Your task to perform on an android device: change text size in settings app Image 0: 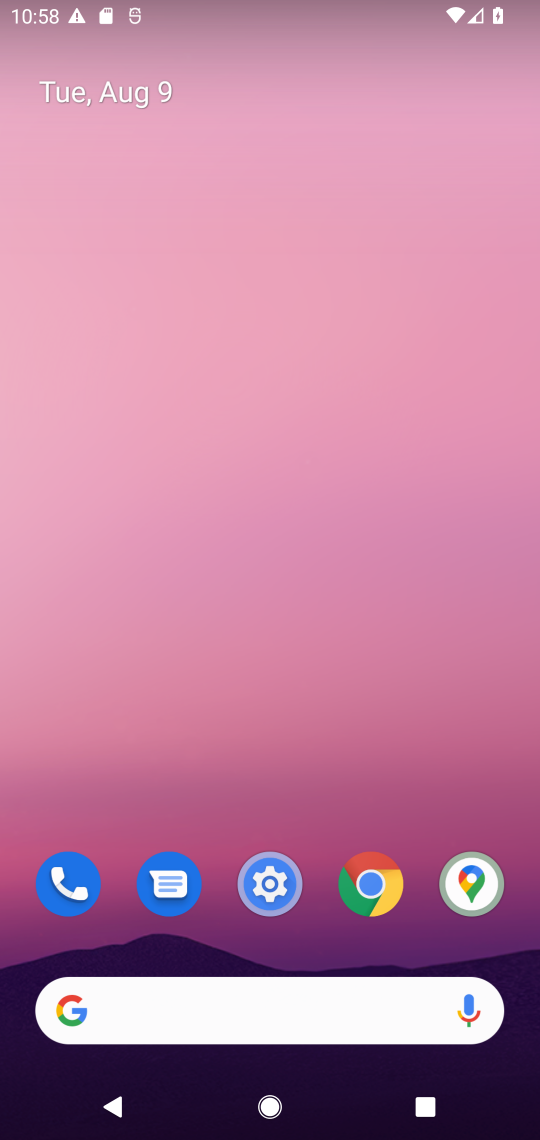
Step 0: click (180, 114)
Your task to perform on an android device: change text size in settings app Image 1: 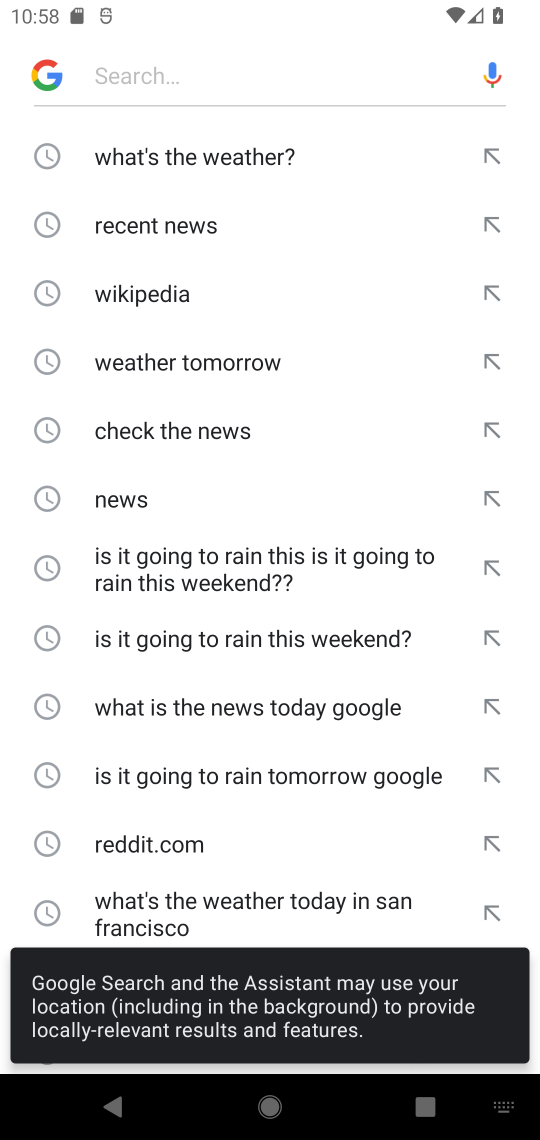
Step 1: press back button
Your task to perform on an android device: change text size in settings app Image 2: 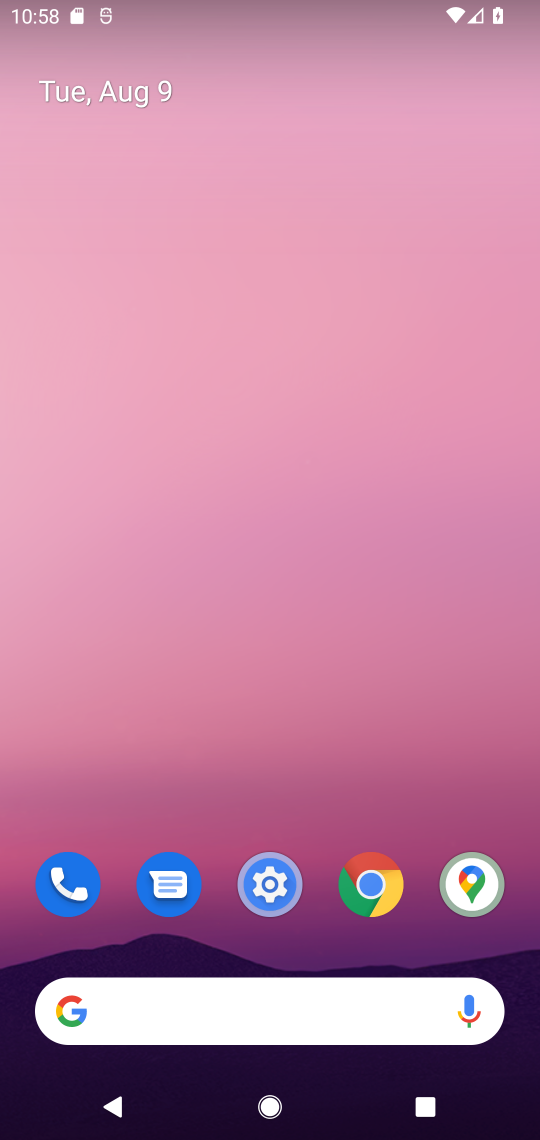
Step 2: drag from (311, 912) to (179, 198)
Your task to perform on an android device: change text size in settings app Image 3: 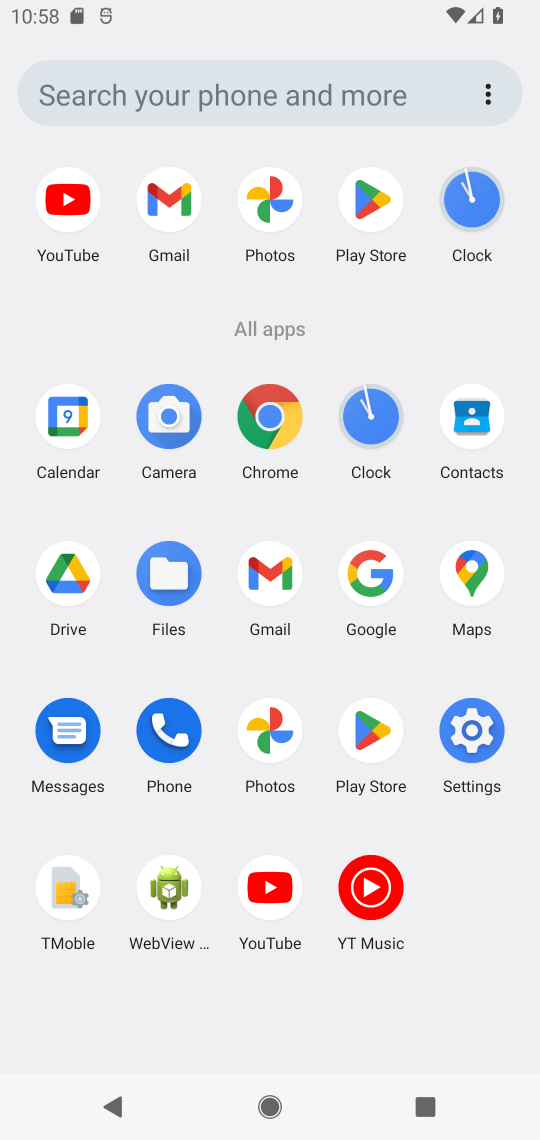
Step 3: click (465, 726)
Your task to perform on an android device: change text size in settings app Image 4: 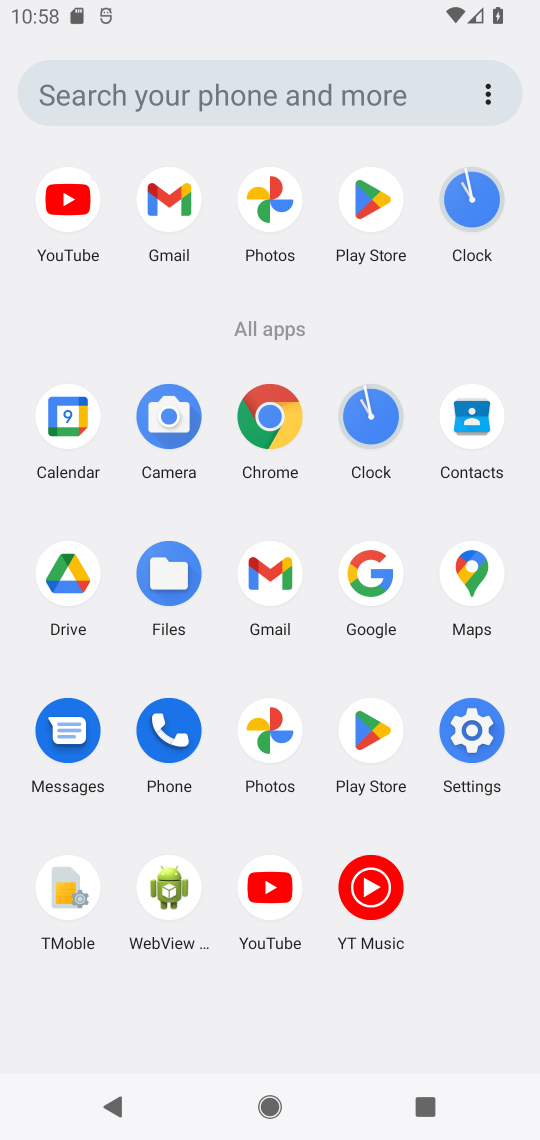
Step 4: click (464, 726)
Your task to perform on an android device: change text size in settings app Image 5: 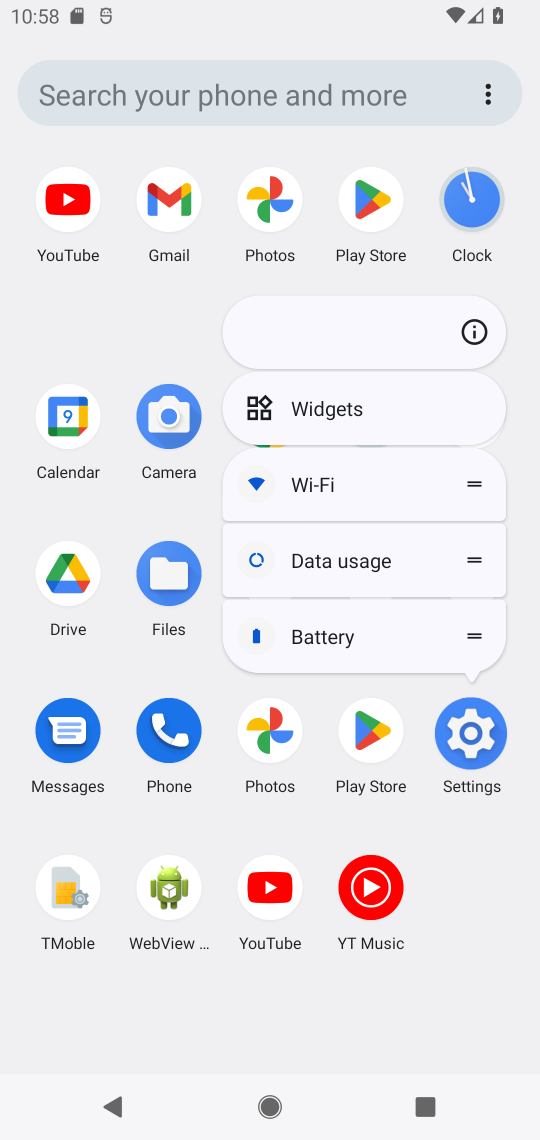
Step 5: click (463, 729)
Your task to perform on an android device: change text size in settings app Image 6: 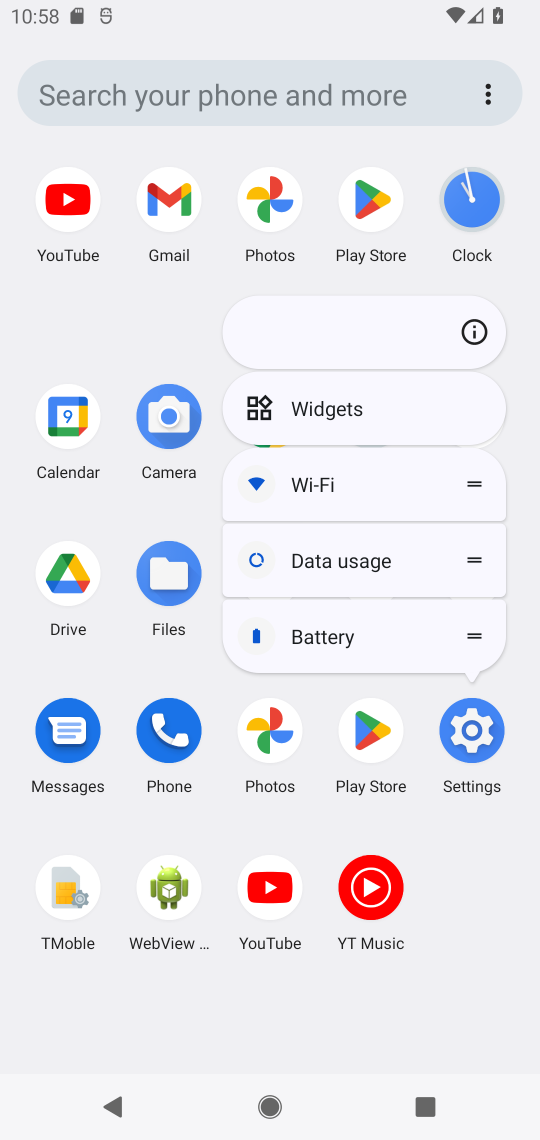
Step 6: click (463, 729)
Your task to perform on an android device: change text size in settings app Image 7: 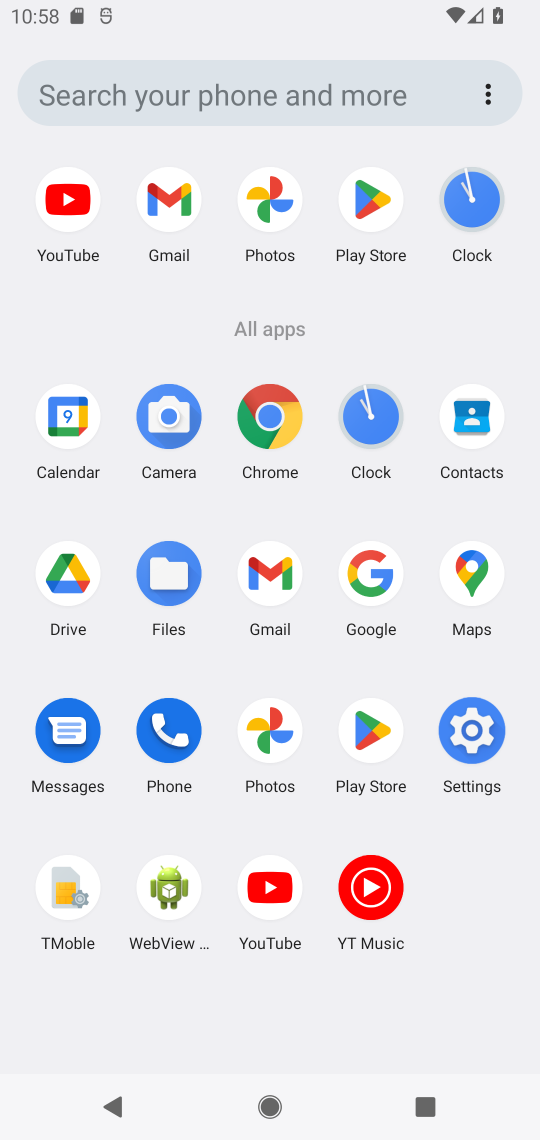
Step 7: click (463, 729)
Your task to perform on an android device: change text size in settings app Image 8: 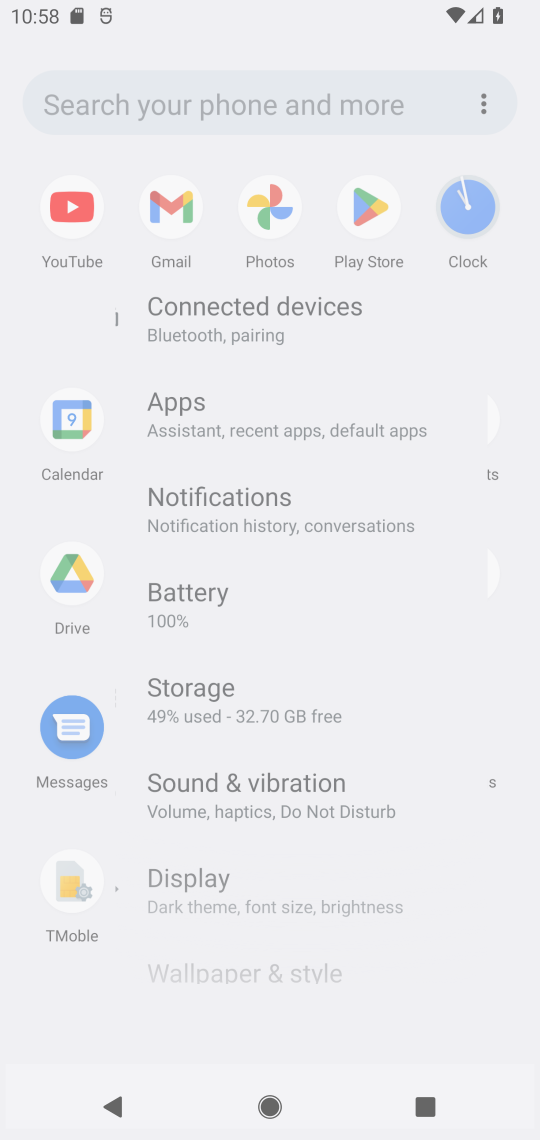
Step 8: click (472, 742)
Your task to perform on an android device: change text size in settings app Image 9: 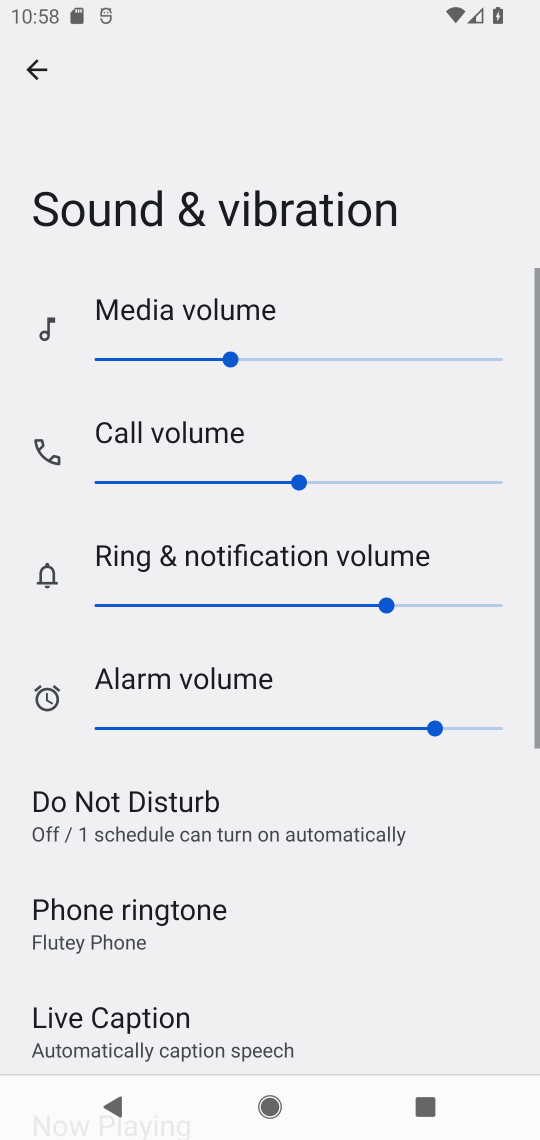
Step 9: click (24, 63)
Your task to perform on an android device: change text size in settings app Image 10: 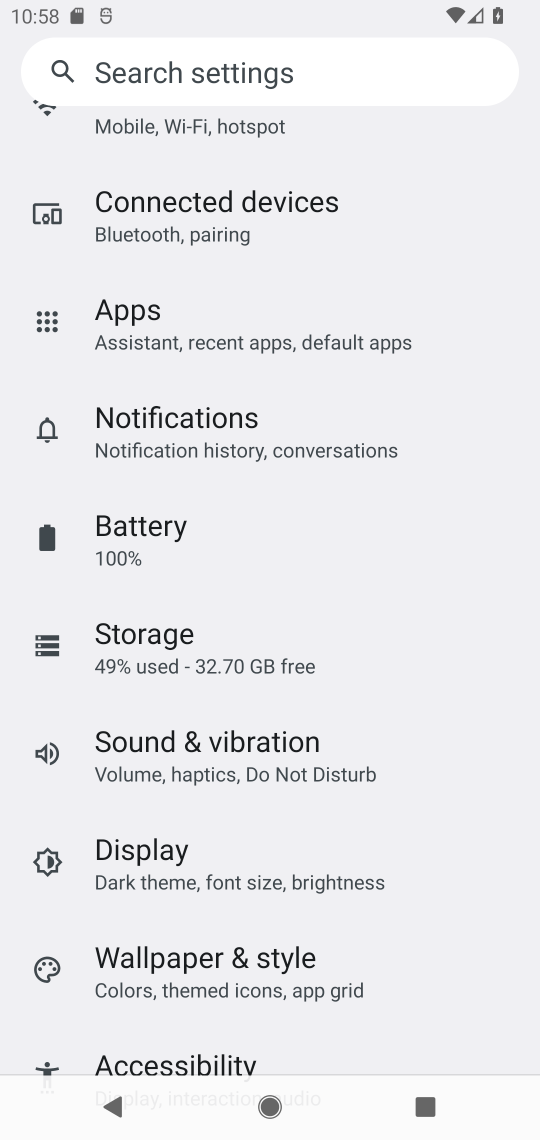
Step 10: drag from (190, 963) to (141, 211)
Your task to perform on an android device: change text size in settings app Image 11: 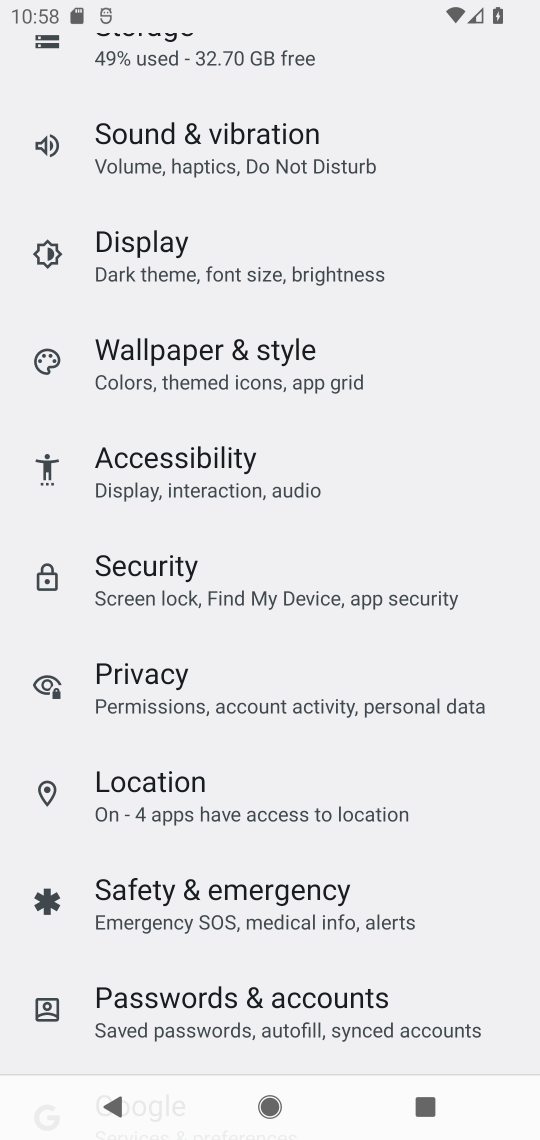
Step 11: click (144, 241)
Your task to perform on an android device: change text size in settings app Image 12: 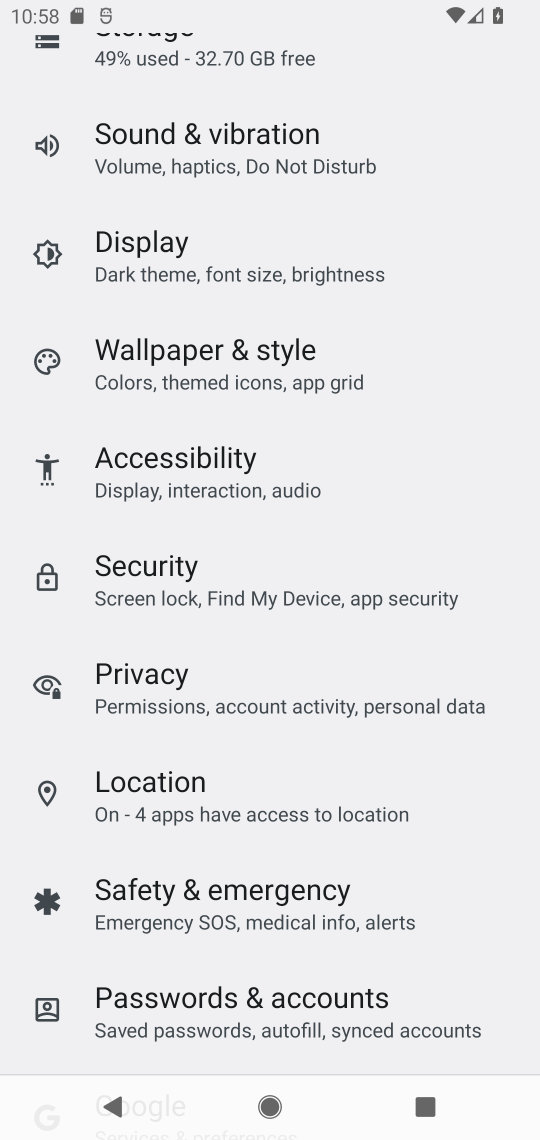
Step 12: click (145, 242)
Your task to perform on an android device: change text size in settings app Image 13: 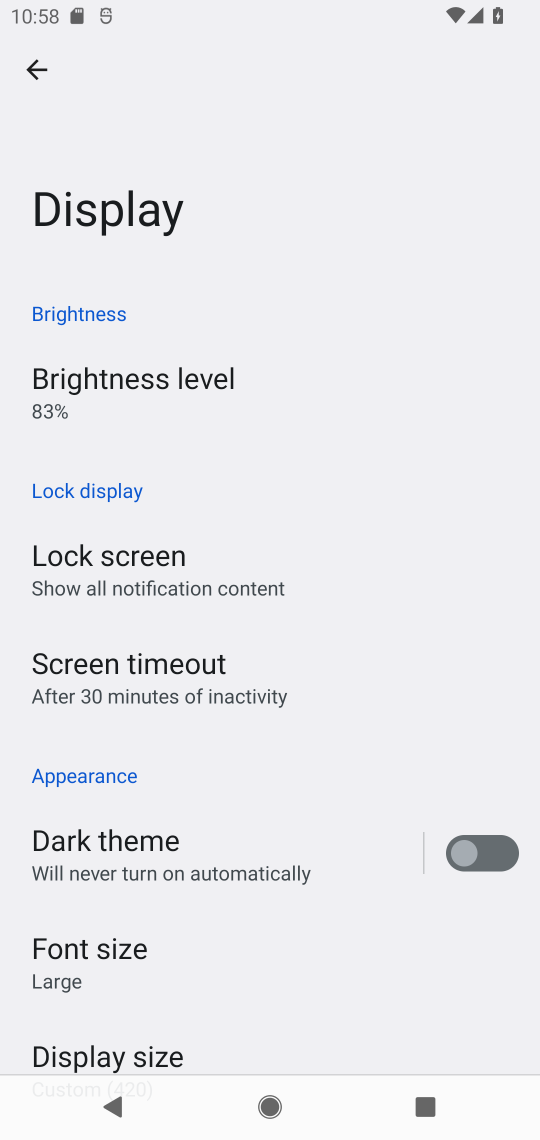
Step 13: click (52, 953)
Your task to perform on an android device: change text size in settings app Image 14: 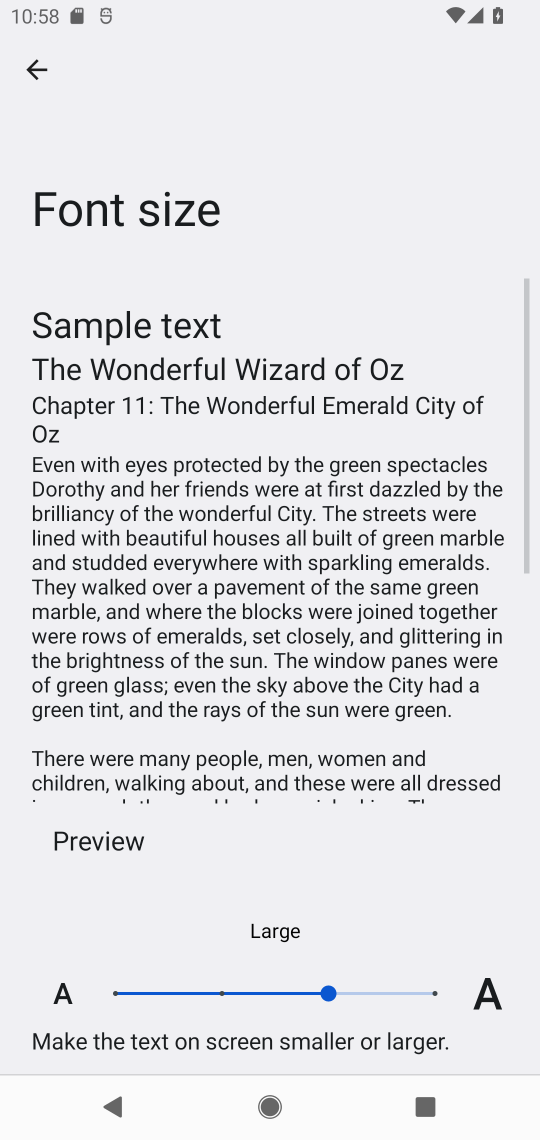
Step 14: click (441, 996)
Your task to perform on an android device: change text size in settings app Image 15: 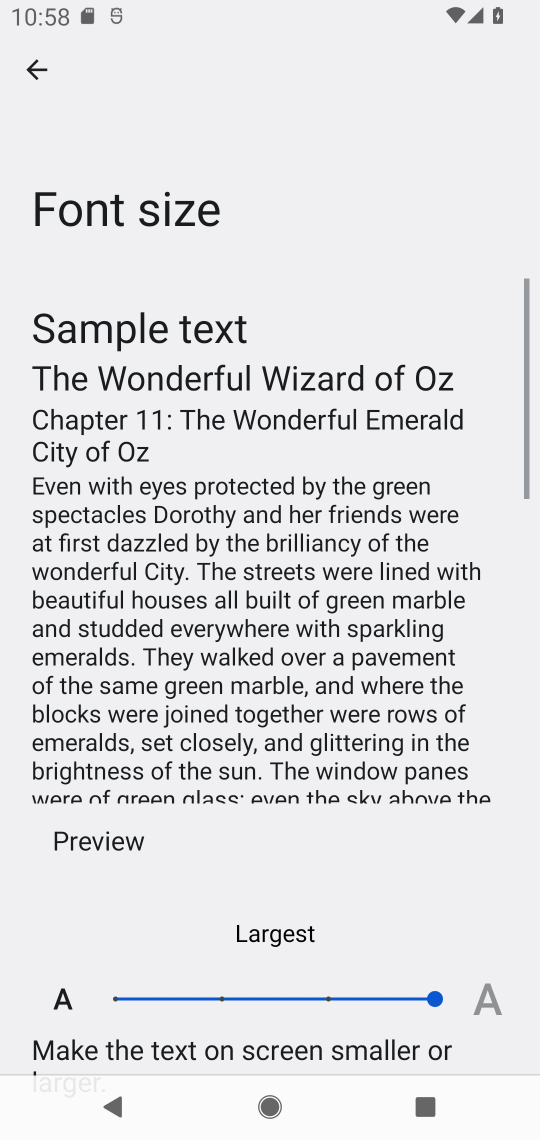
Step 15: task complete